Your task to perform on an android device: Open Chrome and go to the settings page Image 0: 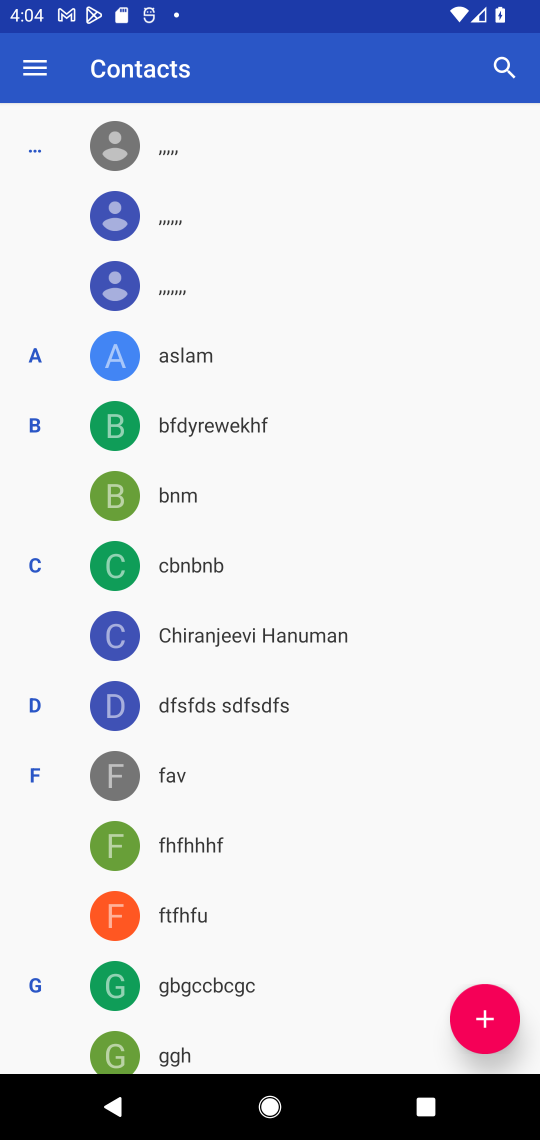
Step 0: press home button
Your task to perform on an android device: Open Chrome and go to the settings page Image 1: 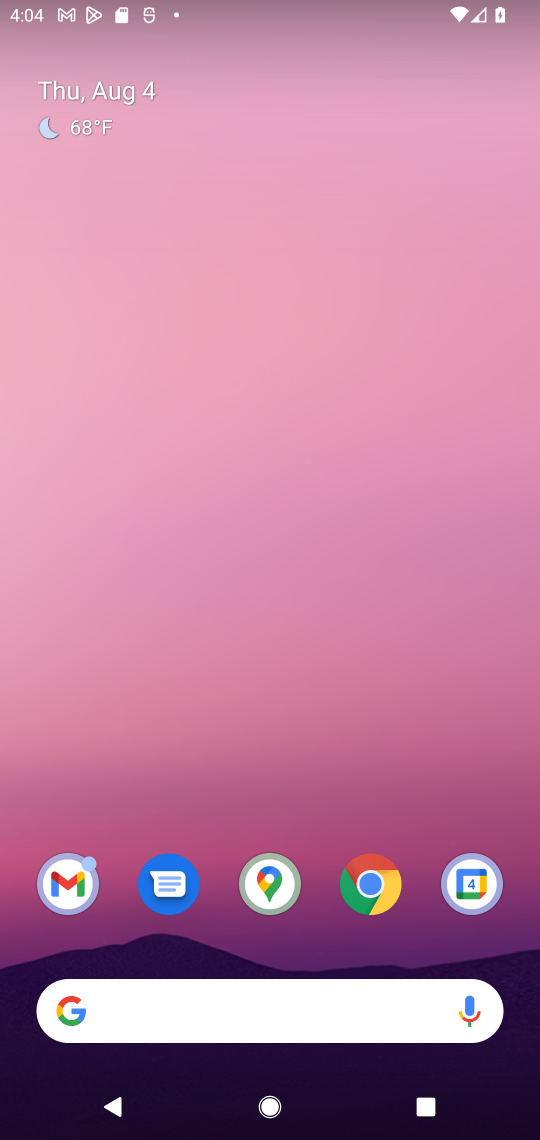
Step 1: click (363, 867)
Your task to perform on an android device: Open Chrome and go to the settings page Image 2: 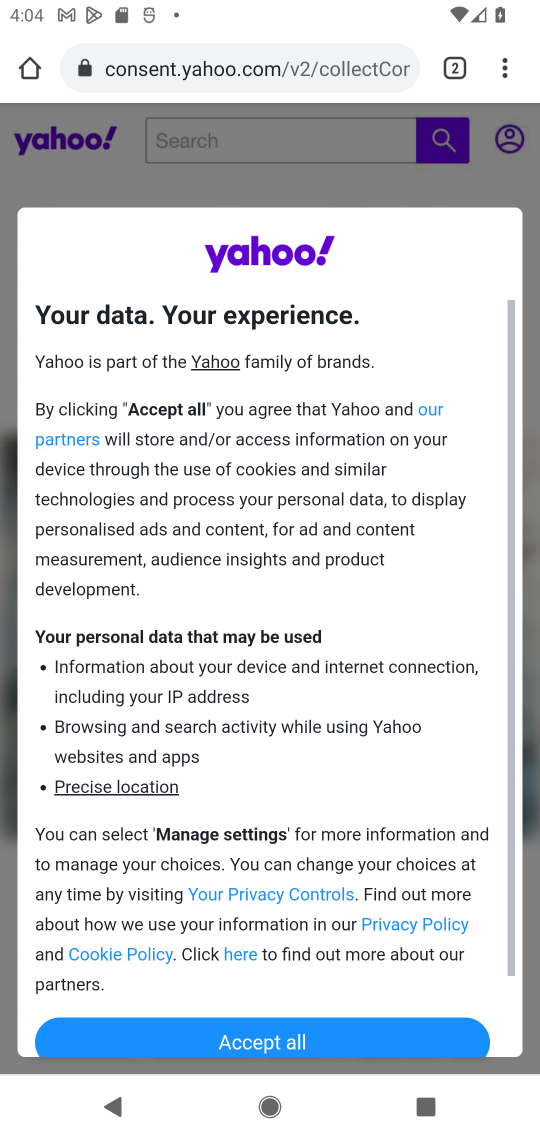
Step 2: click (494, 73)
Your task to perform on an android device: Open Chrome and go to the settings page Image 3: 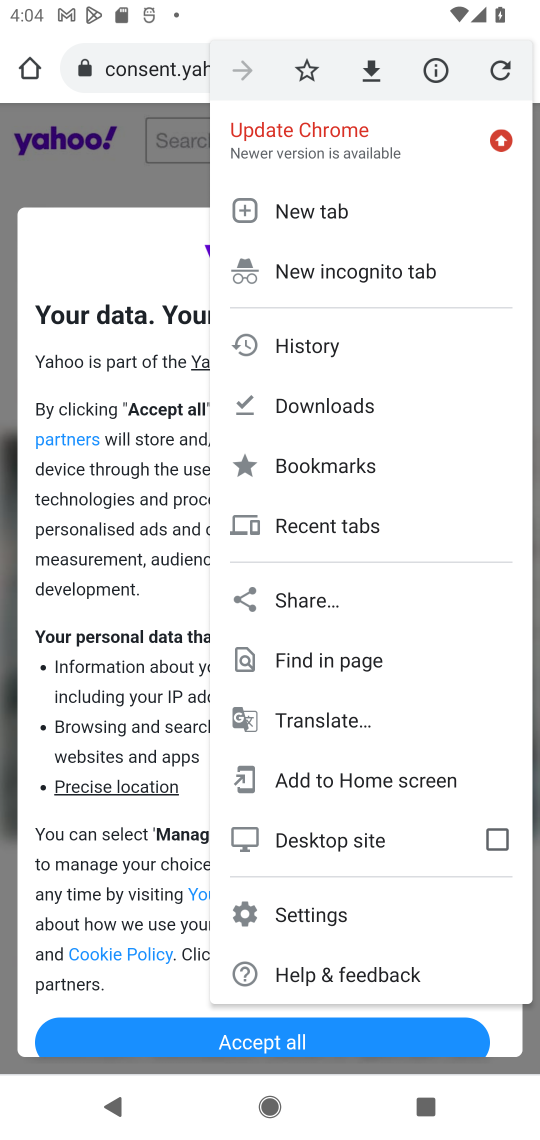
Step 3: click (326, 901)
Your task to perform on an android device: Open Chrome and go to the settings page Image 4: 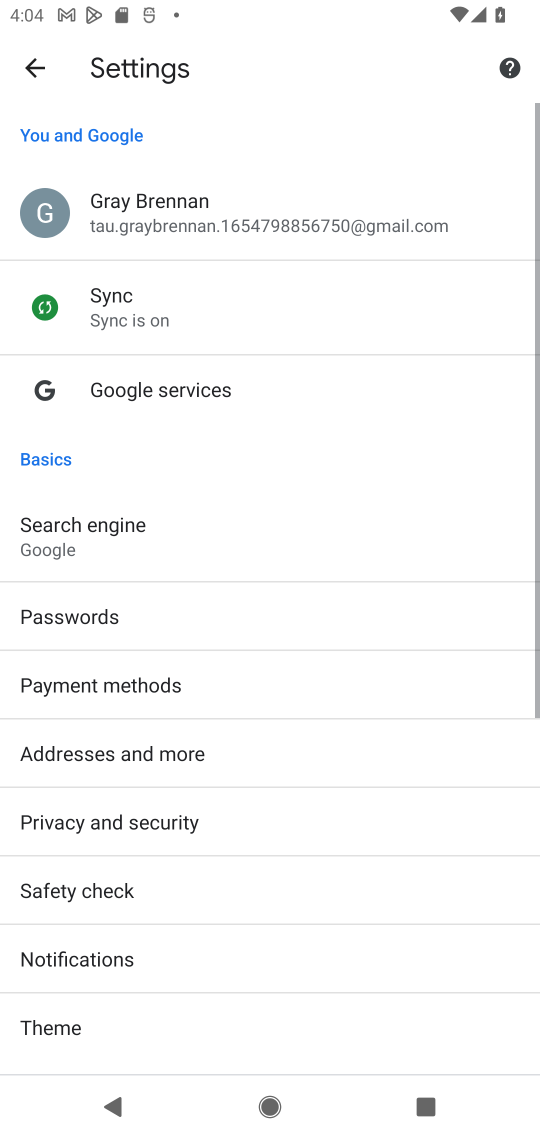
Step 4: task complete